Your task to perform on an android device: Toggle the flashlight Image 0: 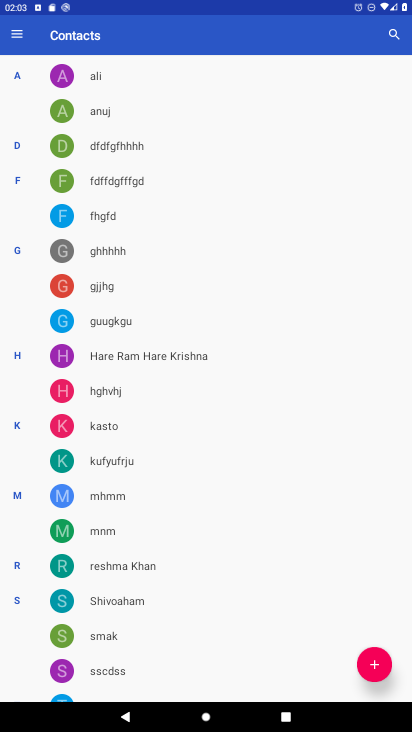
Step 0: press home button
Your task to perform on an android device: Toggle the flashlight Image 1: 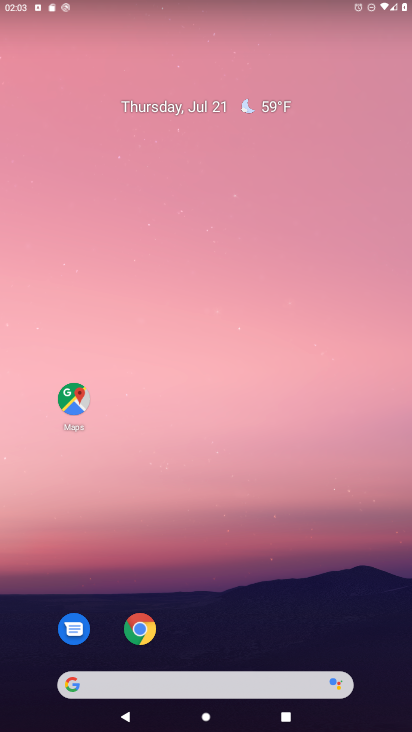
Step 1: drag from (207, 10) to (222, 697)
Your task to perform on an android device: Toggle the flashlight Image 2: 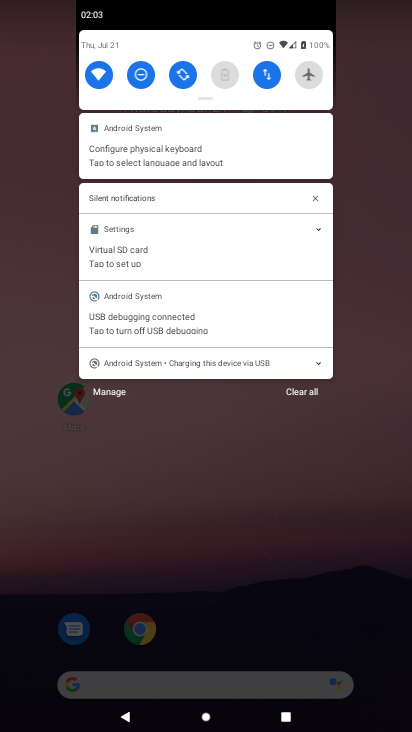
Step 2: drag from (204, 97) to (213, 392)
Your task to perform on an android device: Toggle the flashlight Image 3: 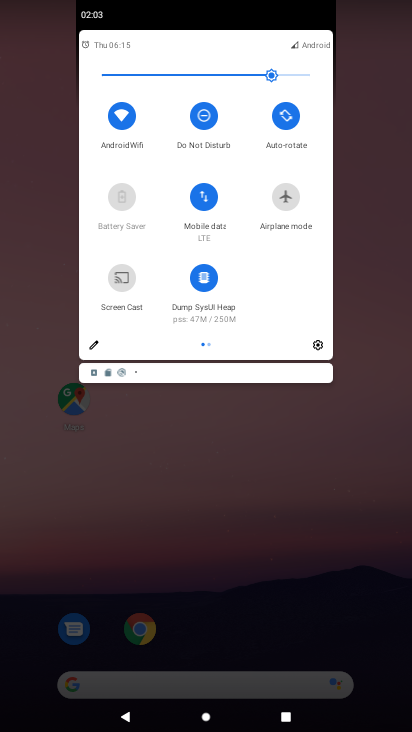
Step 3: click (89, 342)
Your task to perform on an android device: Toggle the flashlight Image 4: 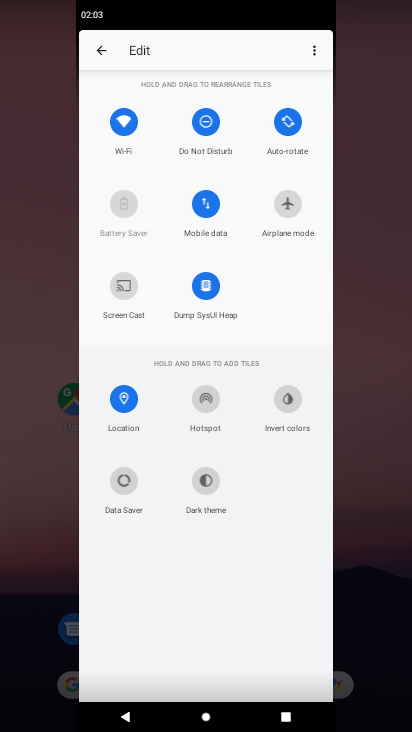
Step 4: task complete